Your task to perform on an android device: Go to internet settings Image 0: 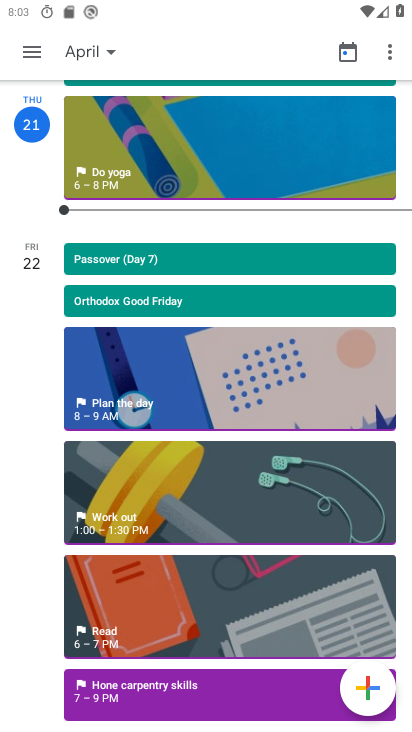
Step 0: press home button
Your task to perform on an android device: Go to internet settings Image 1: 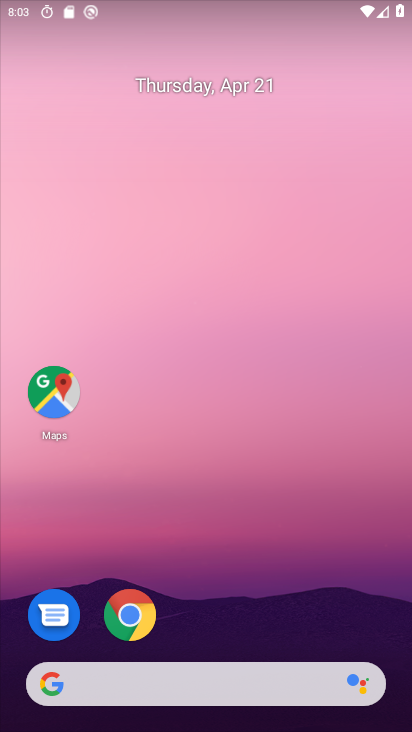
Step 1: drag from (155, 680) to (251, 215)
Your task to perform on an android device: Go to internet settings Image 2: 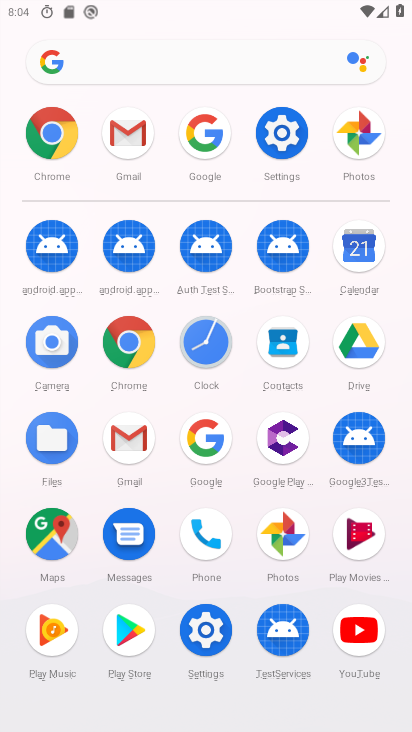
Step 2: click (280, 141)
Your task to perform on an android device: Go to internet settings Image 3: 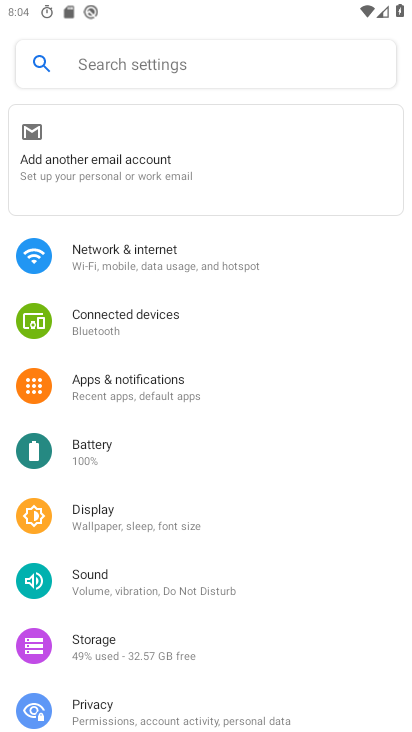
Step 3: click (159, 252)
Your task to perform on an android device: Go to internet settings Image 4: 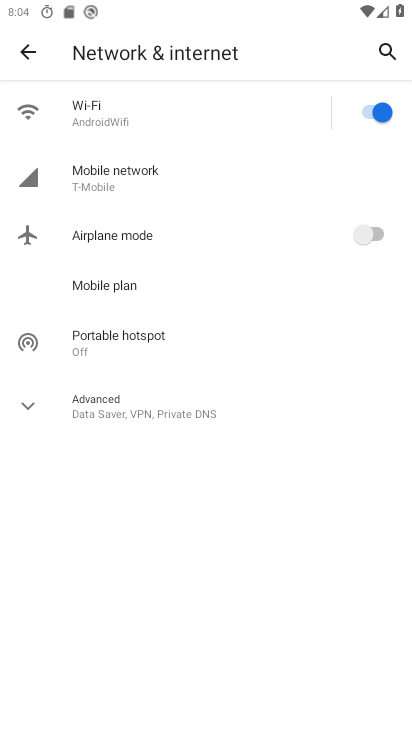
Step 4: task complete